Your task to perform on an android device: Go to calendar. Show me events next week Image 0: 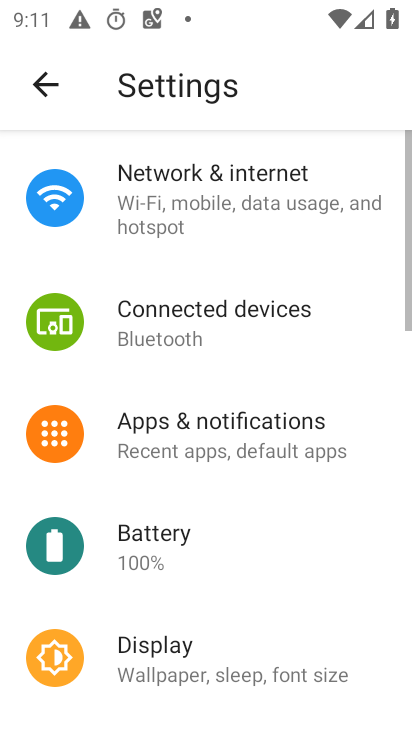
Step 0: press home button
Your task to perform on an android device: Go to calendar. Show me events next week Image 1: 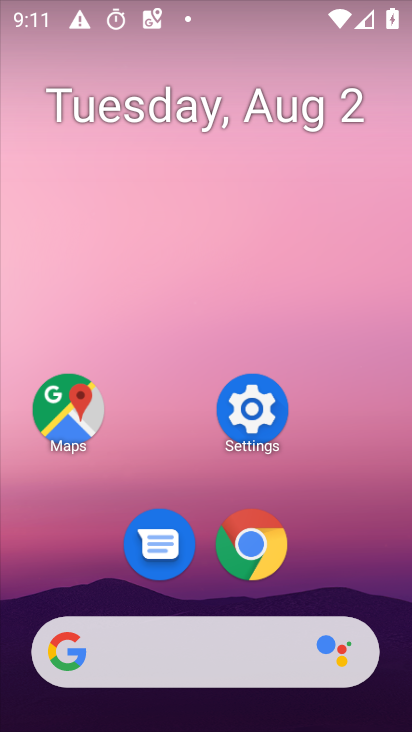
Step 1: drag from (158, 650) to (268, 105)
Your task to perform on an android device: Go to calendar. Show me events next week Image 2: 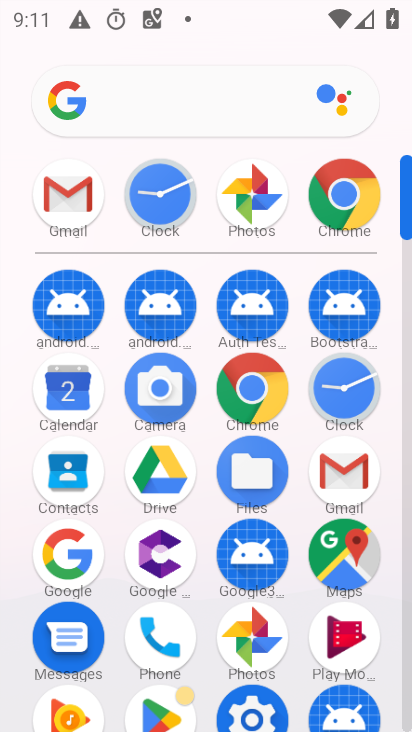
Step 2: click (72, 400)
Your task to perform on an android device: Go to calendar. Show me events next week Image 3: 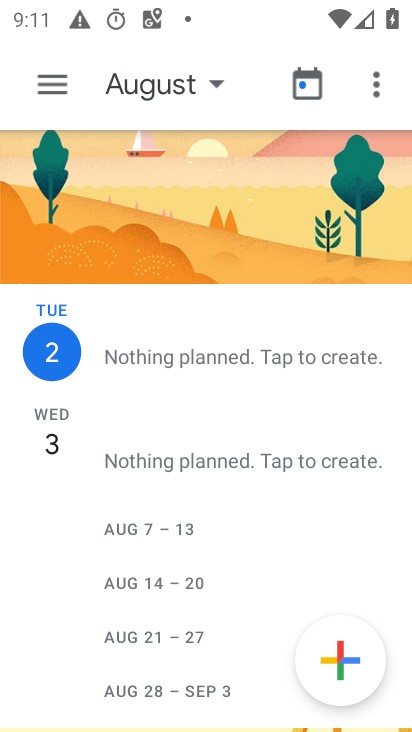
Step 3: click (141, 78)
Your task to perform on an android device: Go to calendar. Show me events next week Image 4: 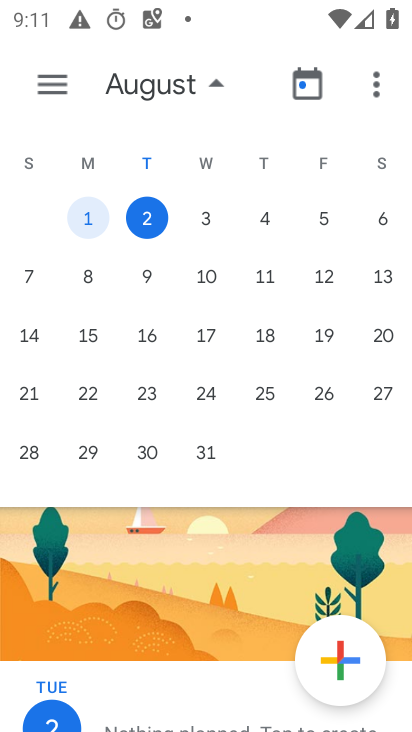
Step 4: click (24, 278)
Your task to perform on an android device: Go to calendar. Show me events next week Image 5: 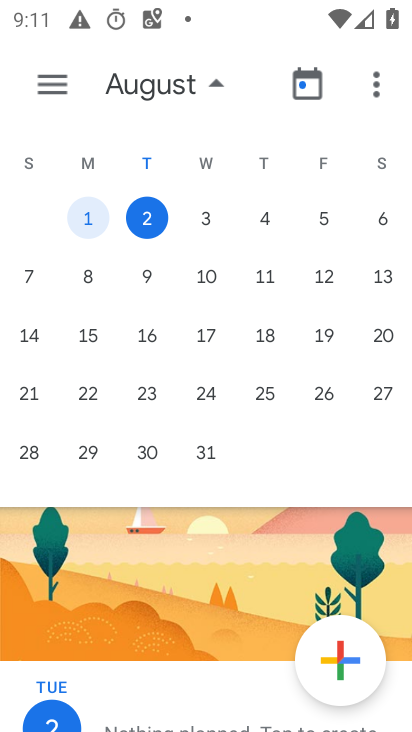
Step 5: click (35, 276)
Your task to perform on an android device: Go to calendar. Show me events next week Image 6: 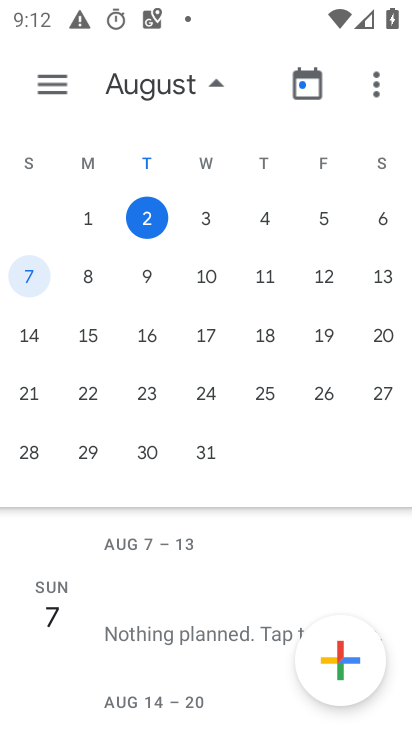
Step 6: click (57, 80)
Your task to perform on an android device: Go to calendar. Show me events next week Image 7: 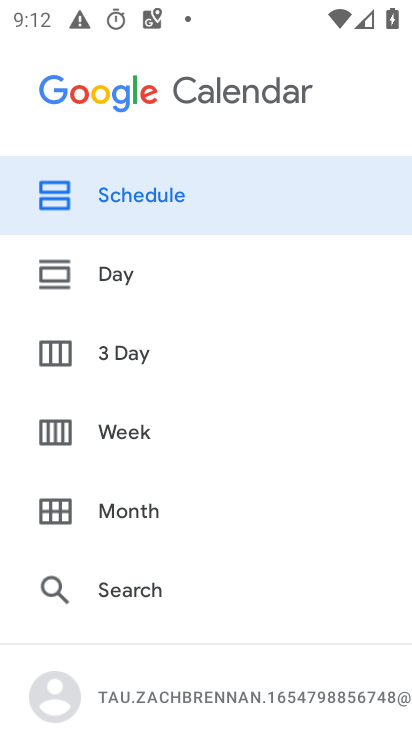
Step 7: click (123, 430)
Your task to perform on an android device: Go to calendar. Show me events next week Image 8: 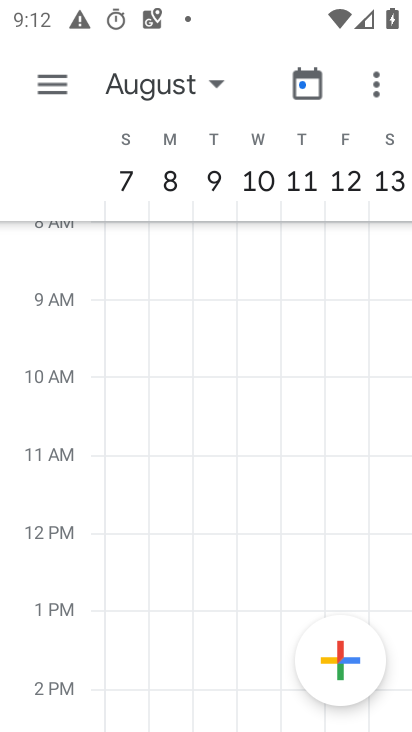
Step 8: click (46, 86)
Your task to perform on an android device: Go to calendar. Show me events next week Image 9: 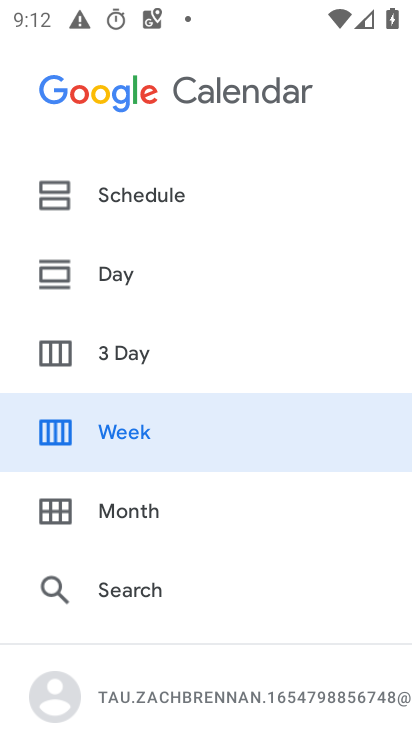
Step 9: click (112, 193)
Your task to perform on an android device: Go to calendar. Show me events next week Image 10: 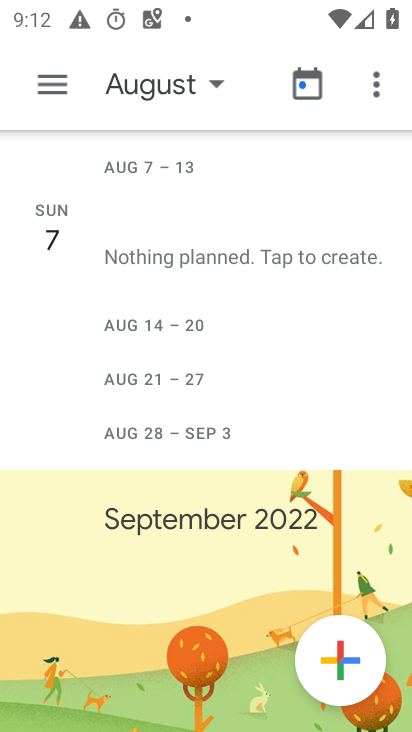
Step 10: task complete